Your task to perform on an android device: Open network settings Image 0: 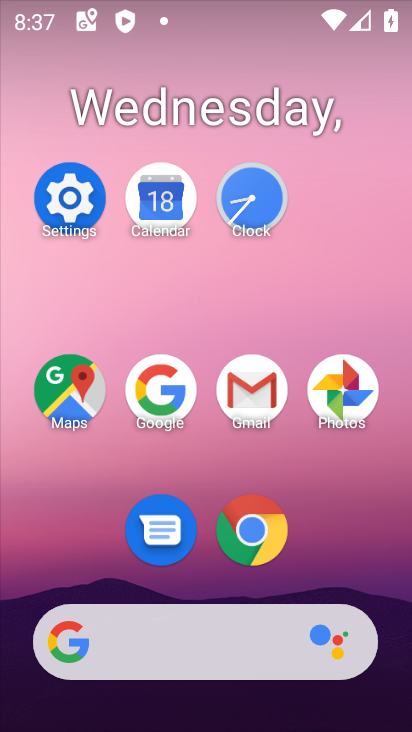
Step 0: click (85, 203)
Your task to perform on an android device: Open network settings Image 1: 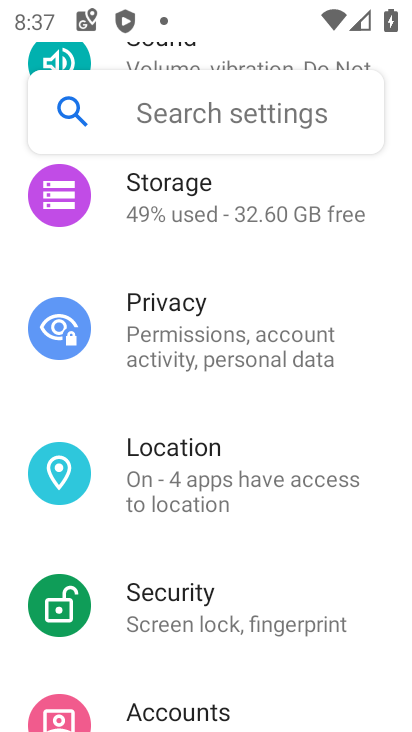
Step 1: drag from (369, 296) to (283, 633)
Your task to perform on an android device: Open network settings Image 2: 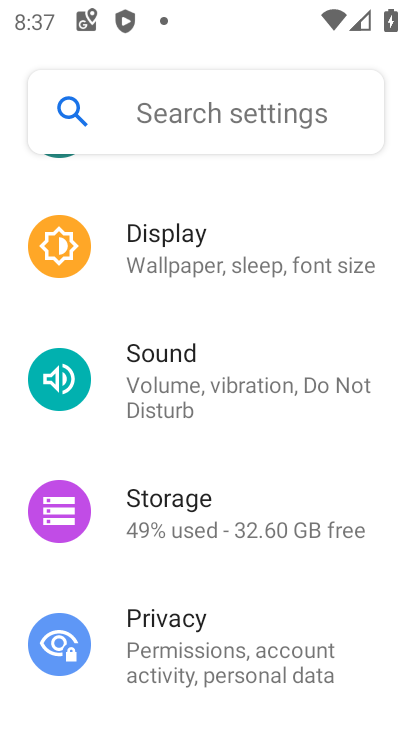
Step 2: drag from (367, 193) to (223, 623)
Your task to perform on an android device: Open network settings Image 3: 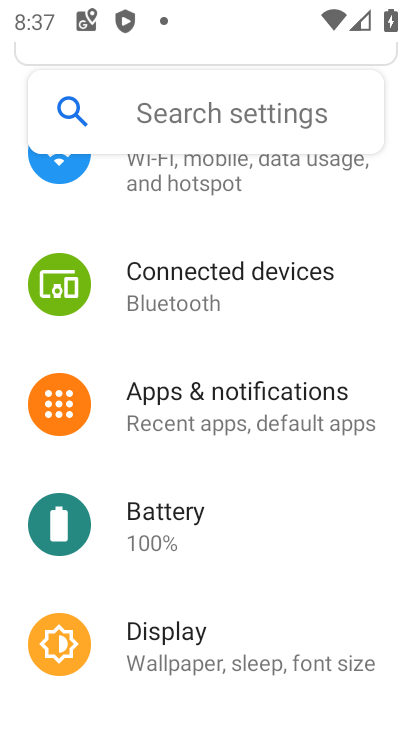
Step 3: click (271, 183)
Your task to perform on an android device: Open network settings Image 4: 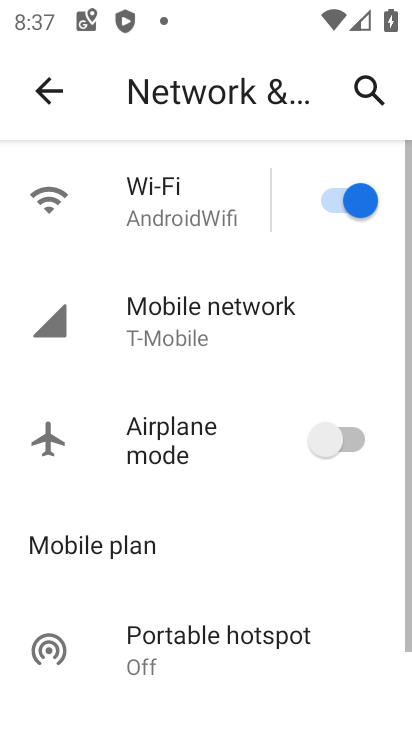
Step 4: click (237, 300)
Your task to perform on an android device: Open network settings Image 5: 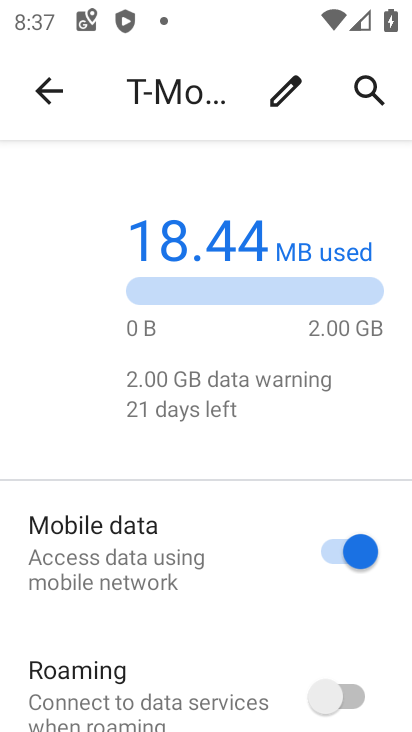
Step 5: task complete